Your task to perform on an android device: What is the news today? Image 0: 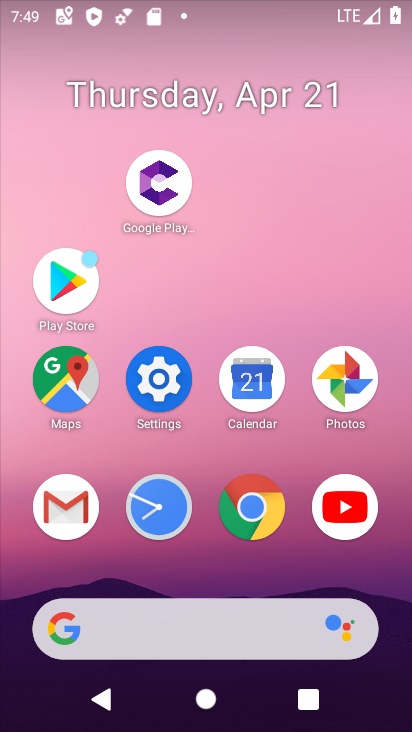
Step 0: drag from (26, 143) to (409, 152)
Your task to perform on an android device: What is the news today? Image 1: 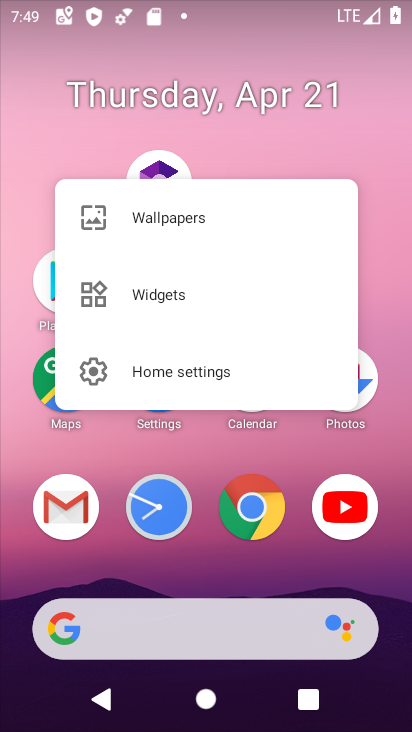
Step 1: click (331, 134)
Your task to perform on an android device: What is the news today? Image 2: 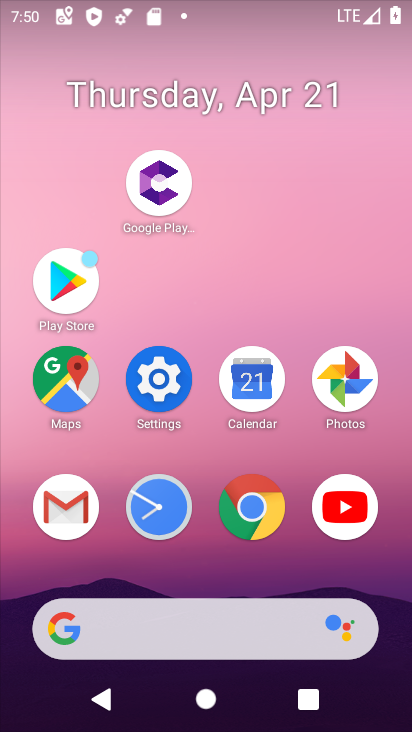
Step 2: task complete